Your task to perform on an android device: Open Youtube and go to "Your channel" Image 0: 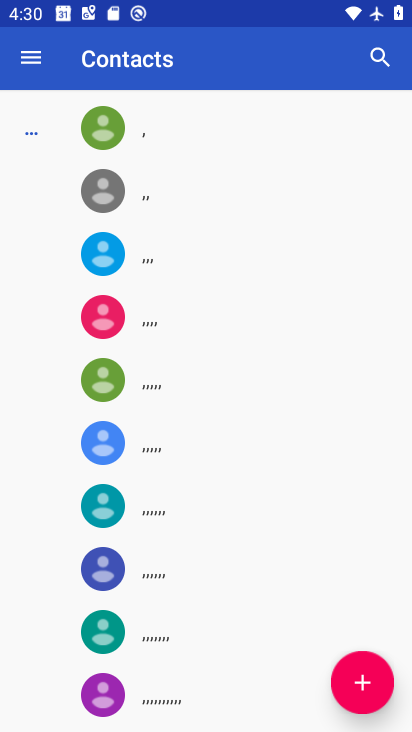
Step 0: press home button
Your task to perform on an android device: Open Youtube and go to "Your channel" Image 1: 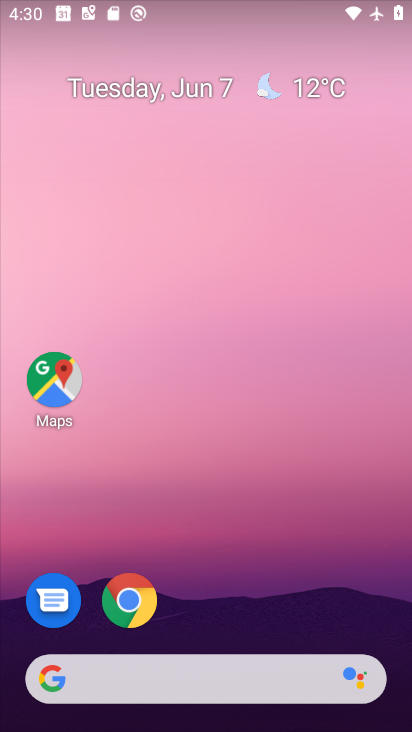
Step 1: drag from (262, 598) to (221, 154)
Your task to perform on an android device: Open Youtube and go to "Your channel" Image 2: 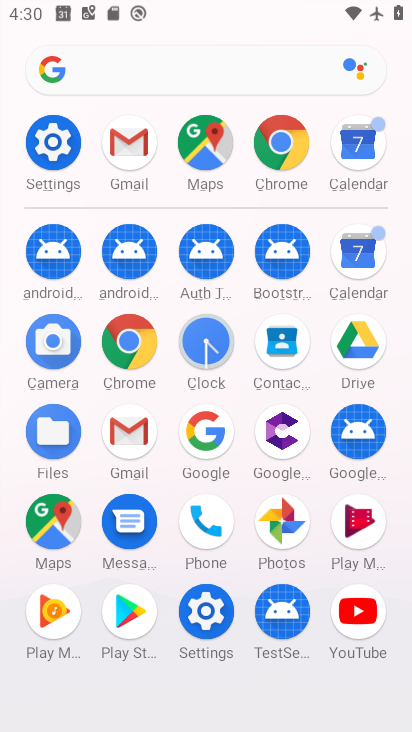
Step 2: click (360, 616)
Your task to perform on an android device: Open Youtube and go to "Your channel" Image 3: 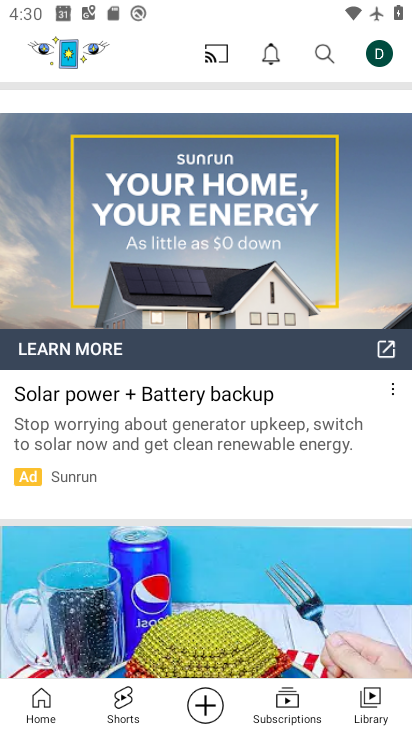
Step 3: click (385, 51)
Your task to perform on an android device: Open Youtube and go to "Your channel" Image 4: 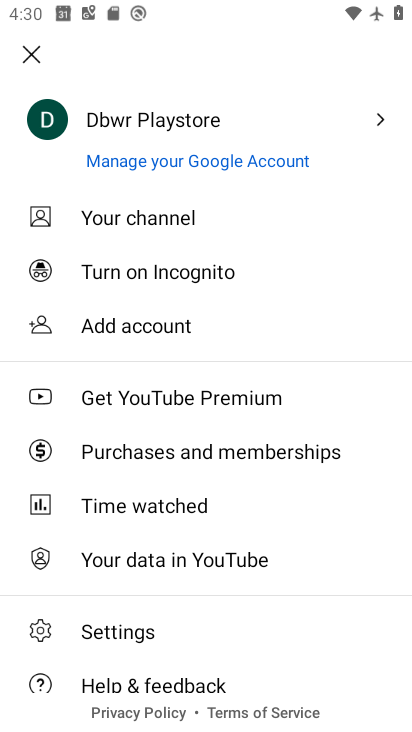
Step 4: click (189, 223)
Your task to perform on an android device: Open Youtube and go to "Your channel" Image 5: 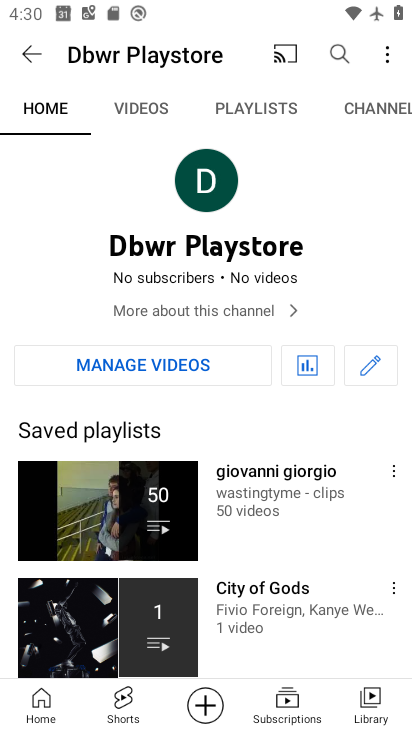
Step 5: task complete